Your task to perform on an android device: Search for seafood restaurants on Google Maps Image 0: 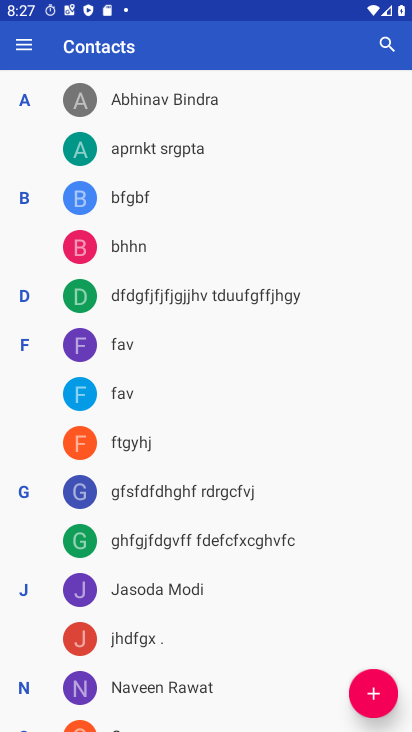
Step 0: press home button
Your task to perform on an android device: Search for seafood restaurants on Google Maps Image 1: 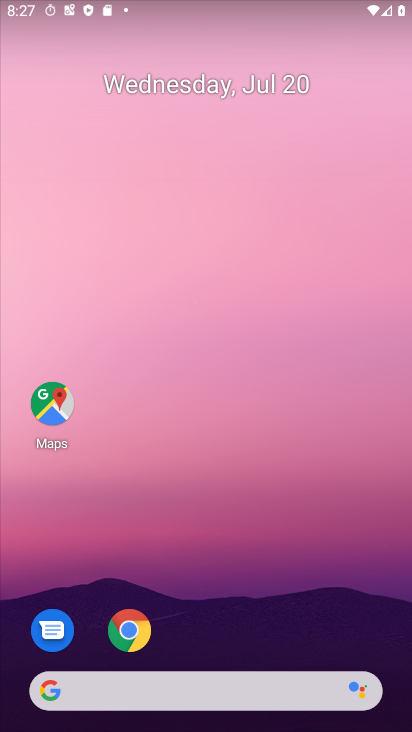
Step 1: drag from (193, 634) to (211, 171)
Your task to perform on an android device: Search for seafood restaurants on Google Maps Image 2: 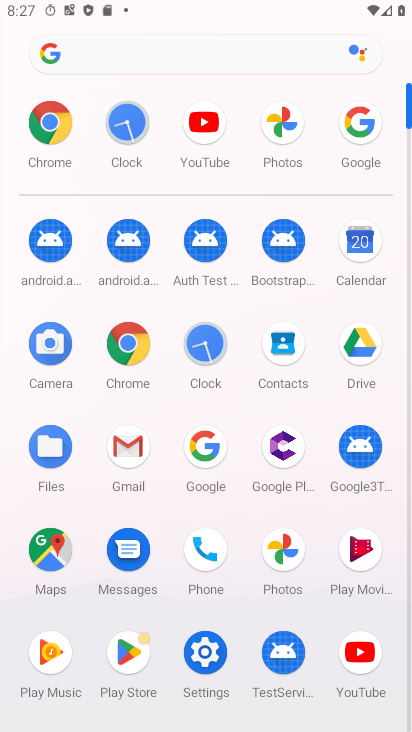
Step 2: drag from (235, 492) to (230, 322)
Your task to perform on an android device: Search for seafood restaurants on Google Maps Image 3: 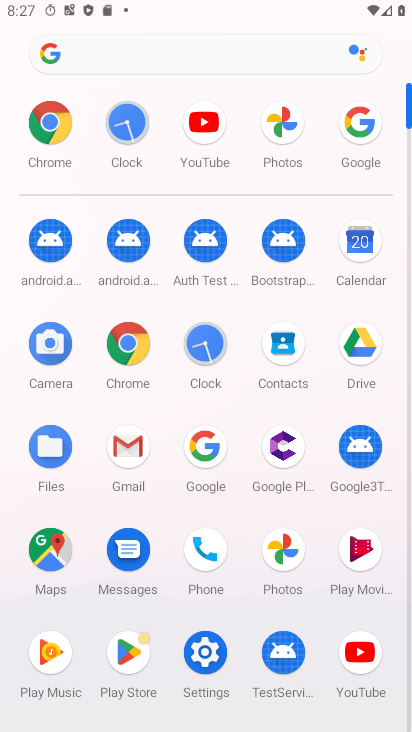
Step 3: drag from (253, 545) to (253, 188)
Your task to perform on an android device: Search for seafood restaurants on Google Maps Image 4: 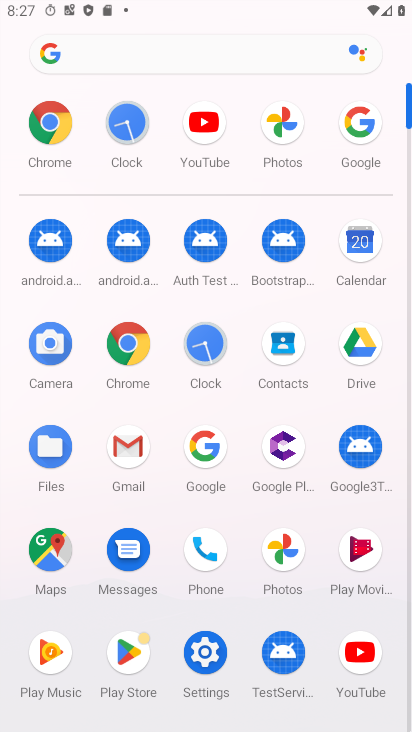
Step 4: click (48, 568)
Your task to perform on an android device: Search for seafood restaurants on Google Maps Image 5: 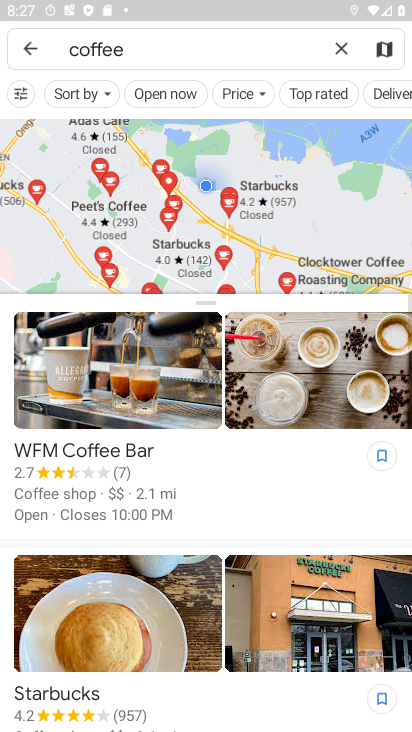
Step 5: click (345, 50)
Your task to perform on an android device: Search for seafood restaurants on Google Maps Image 6: 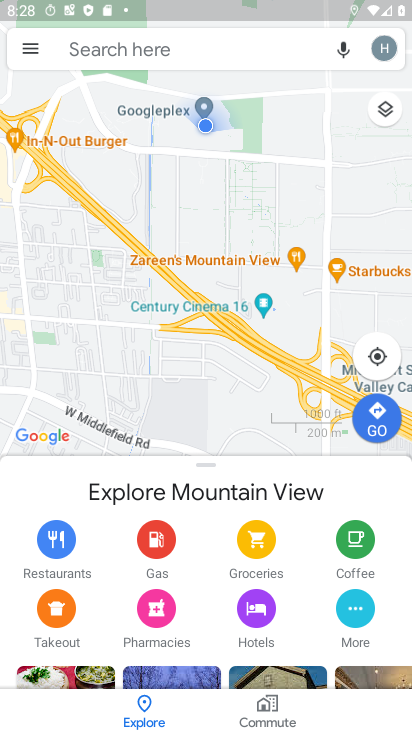
Step 6: click (228, 54)
Your task to perform on an android device: Search for seafood restaurants on Google Maps Image 7: 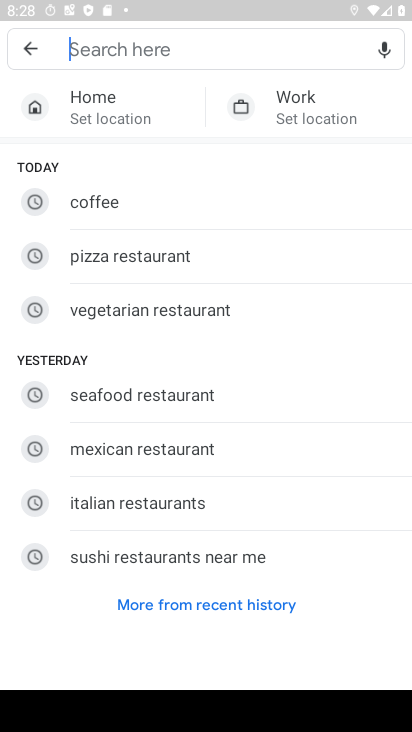
Step 7: click (143, 403)
Your task to perform on an android device: Search for seafood restaurants on Google Maps Image 8: 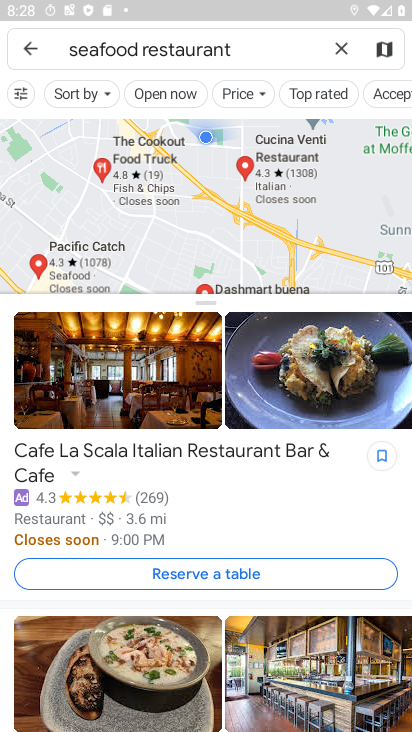
Step 8: task complete